Your task to perform on an android device: Open the calendar and show me this week's events? Image 0: 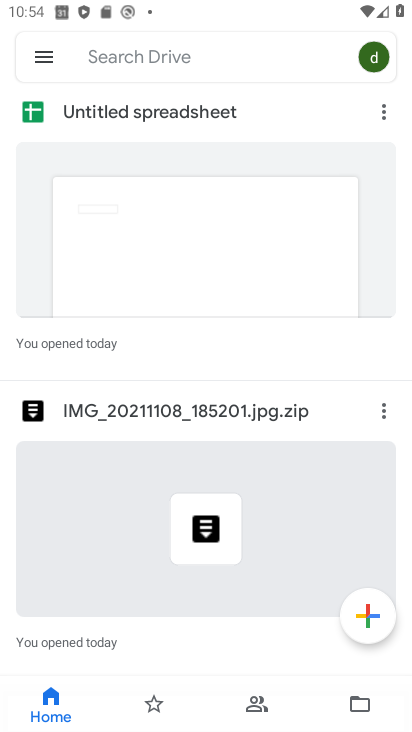
Step 0: press home button
Your task to perform on an android device: Open the calendar and show me this week's events? Image 1: 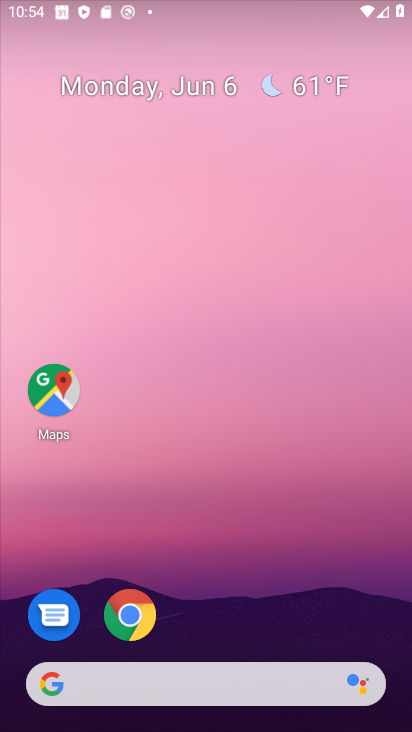
Step 1: drag from (116, 723) to (93, 103)
Your task to perform on an android device: Open the calendar and show me this week's events? Image 2: 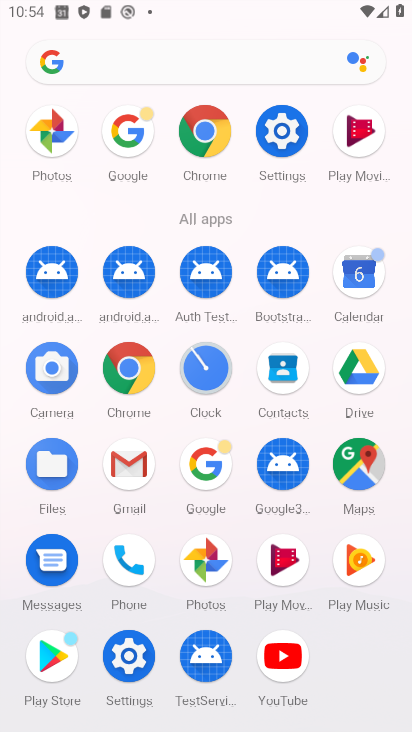
Step 2: click (367, 271)
Your task to perform on an android device: Open the calendar and show me this week's events? Image 3: 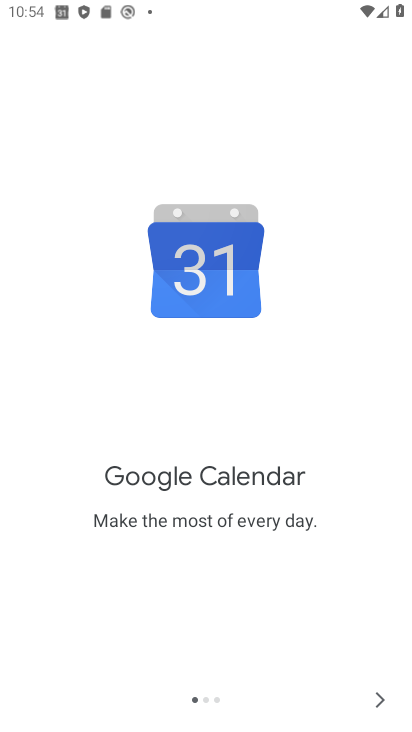
Step 3: click (371, 695)
Your task to perform on an android device: Open the calendar and show me this week's events? Image 4: 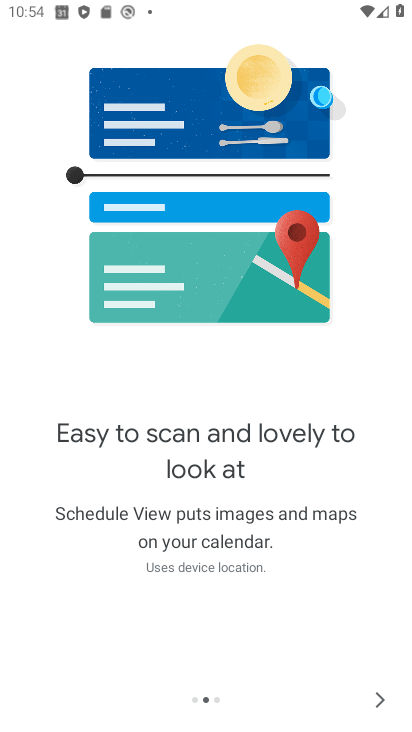
Step 4: click (371, 695)
Your task to perform on an android device: Open the calendar and show me this week's events? Image 5: 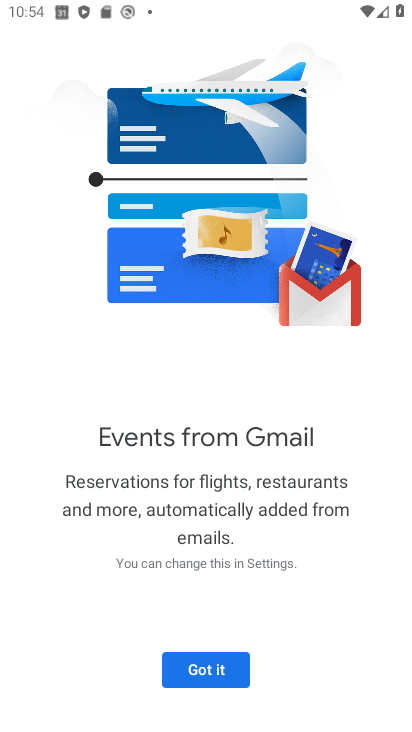
Step 5: click (175, 678)
Your task to perform on an android device: Open the calendar and show me this week's events? Image 6: 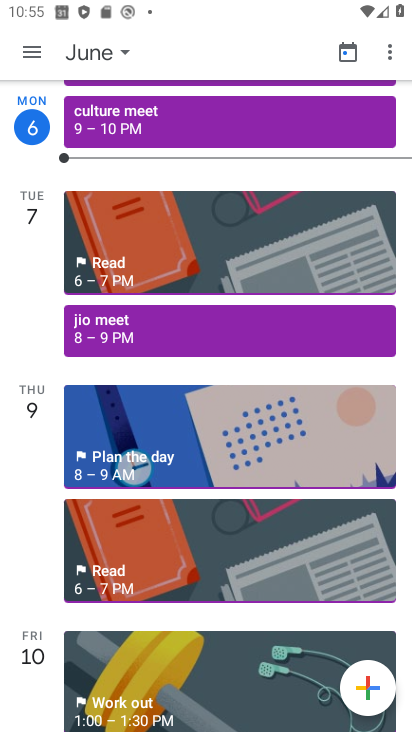
Step 6: click (34, 56)
Your task to perform on an android device: Open the calendar and show me this week's events? Image 7: 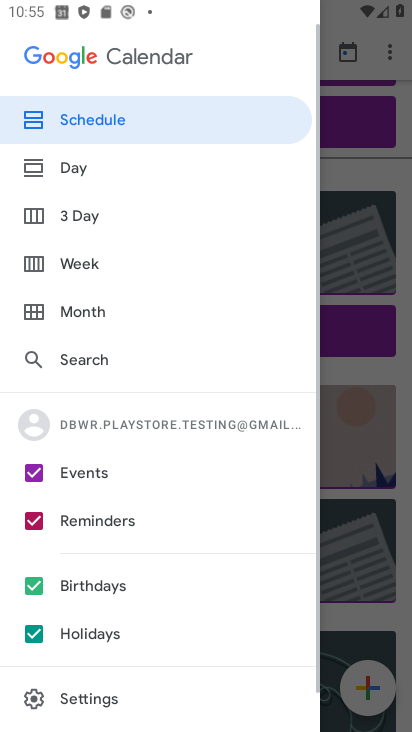
Step 7: click (32, 523)
Your task to perform on an android device: Open the calendar and show me this week's events? Image 8: 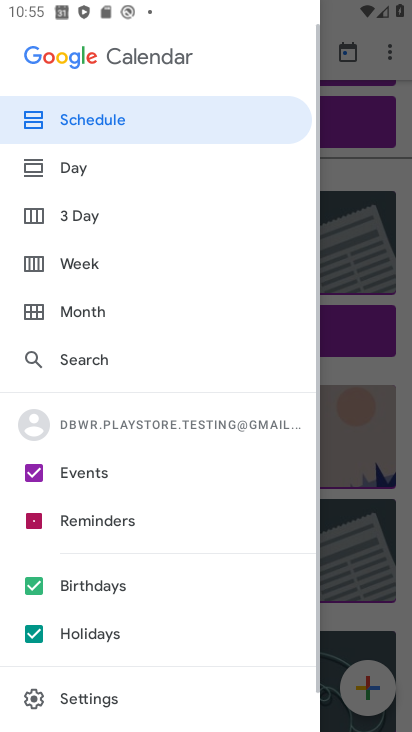
Step 8: click (39, 591)
Your task to perform on an android device: Open the calendar and show me this week's events? Image 9: 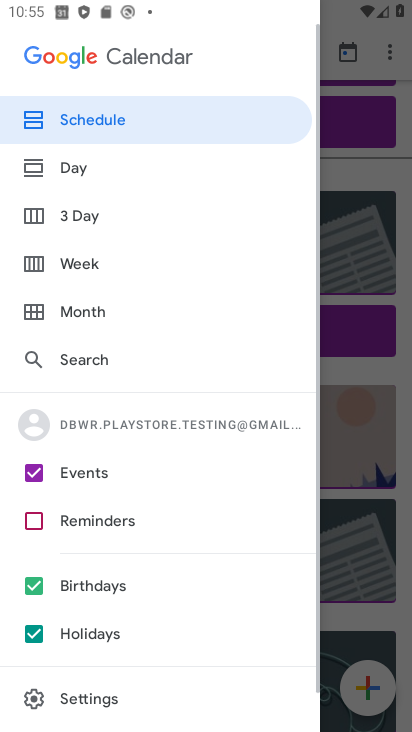
Step 9: click (30, 633)
Your task to perform on an android device: Open the calendar and show me this week's events? Image 10: 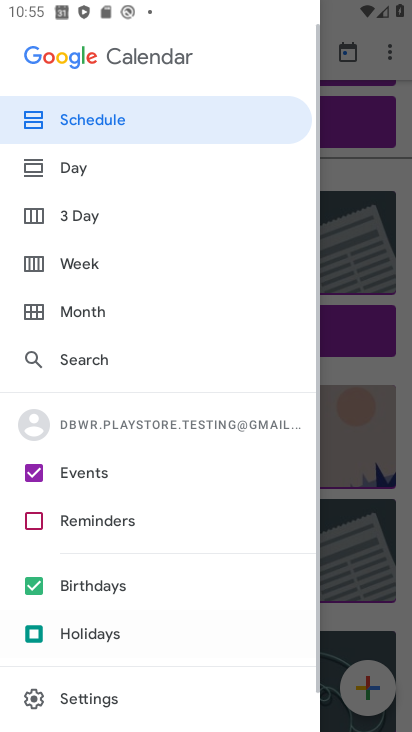
Step 10: click (30, 579)
Your task to perform on an android device: Open the calendar and show me this week's events? Image 11: 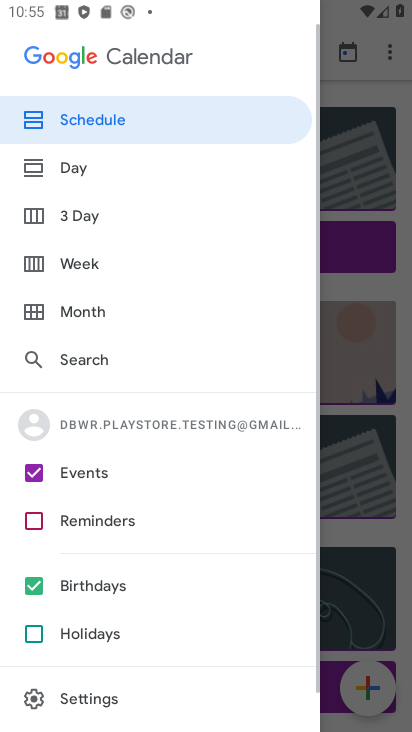
Step 11: click (34, 594)
Your task to perform on an android device: Open the calendar and show me this week's events? Image 12: 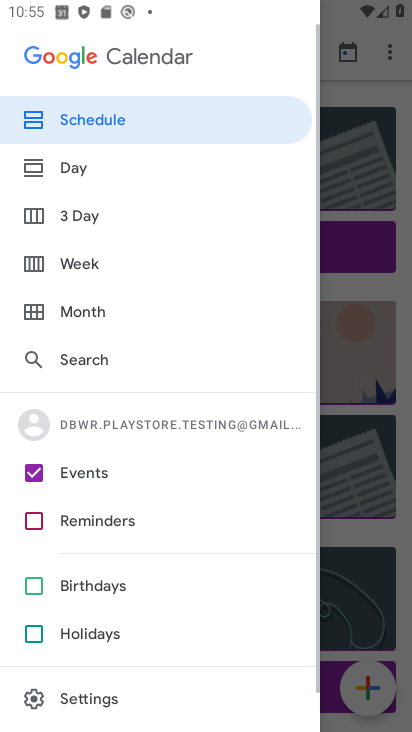
Step 12: click (61, 267)
Your task to perform on an android device: Open the calendar and show me this week's events? Image 13: 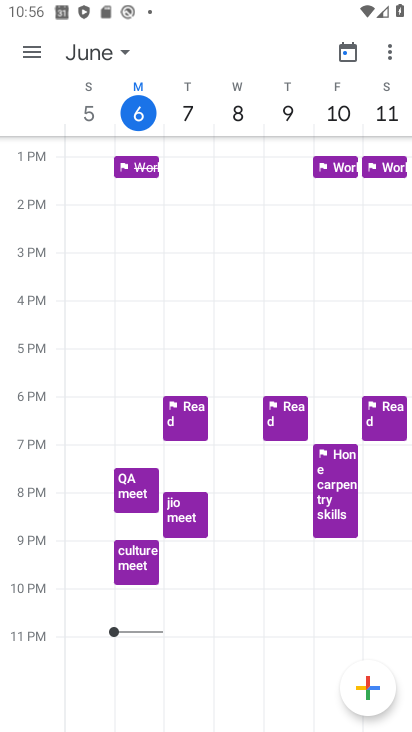
Step 13: task complete